Your task to perform on an android device: open a bookmark in the chrome app Image 0: 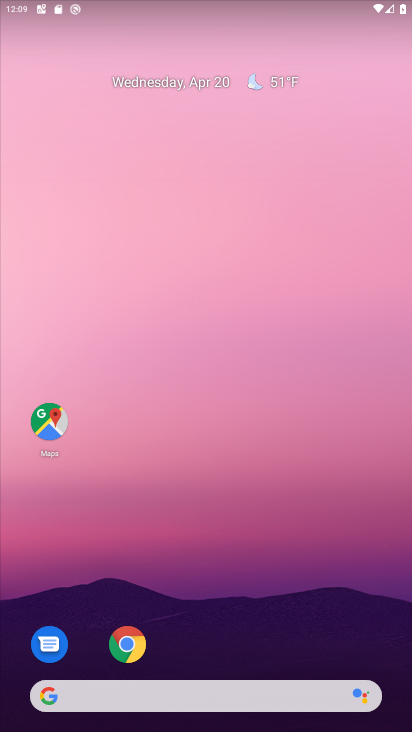
Step 0: click (128, 637)
Your task to perform on an android device: open a bookmark in the chrome app Image 1: 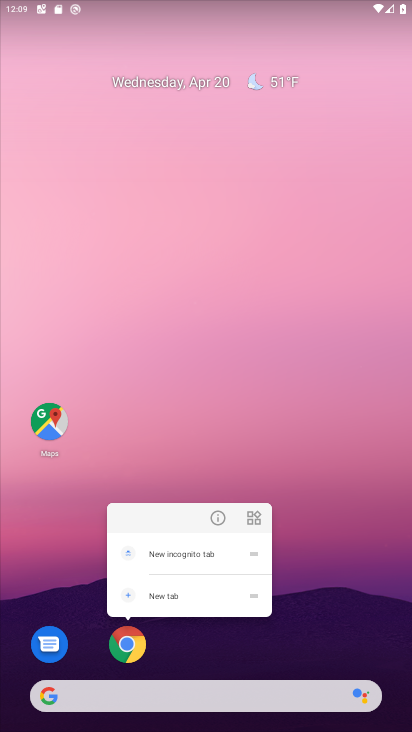
Step 1: click (128, 648)
Your task to perform on an android device: open a bookmark in the chrome app Image 2: 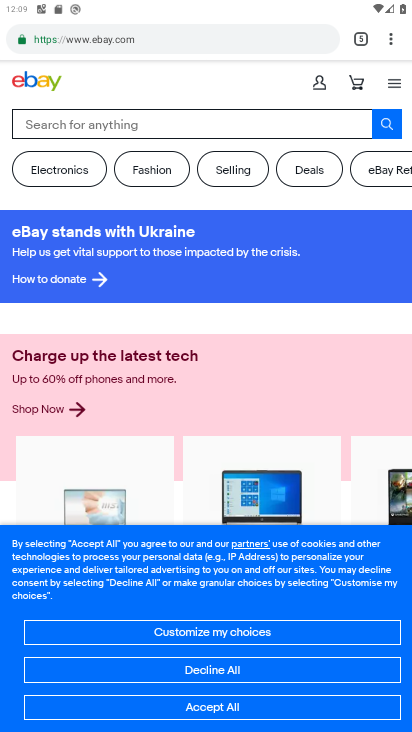
Step 2: click (393, 42)
Your task to perform on an android device: open a bookmark in the chrome app Image 3: 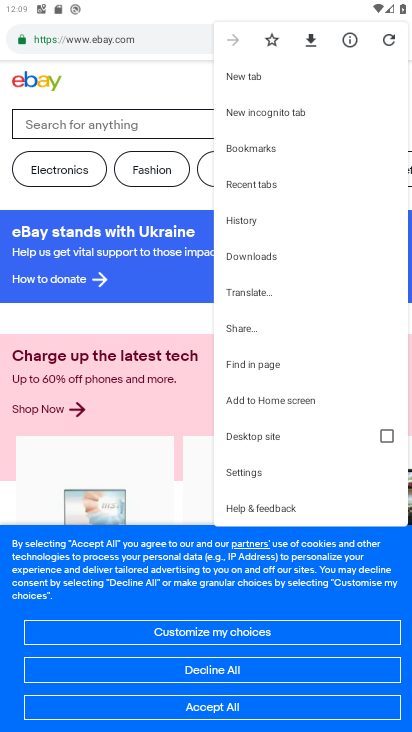
Step 3: click (274, 148)
Your task to perform on an android device: open a bookmark in the chrome app Image 4: 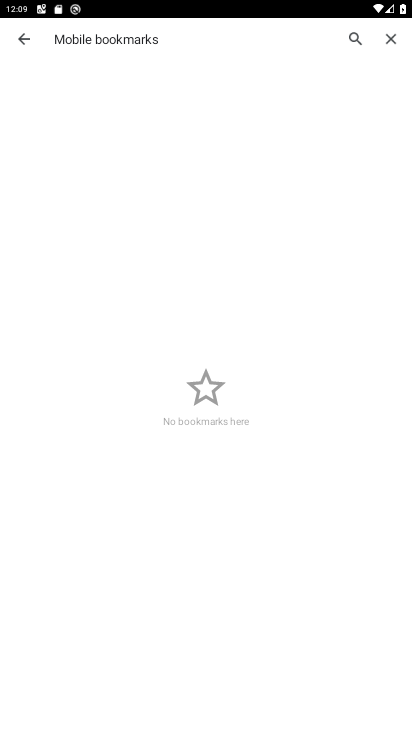
Step 4: task complete